Your task to perform on an android device: turn off javascript in the chrome app Image 0: 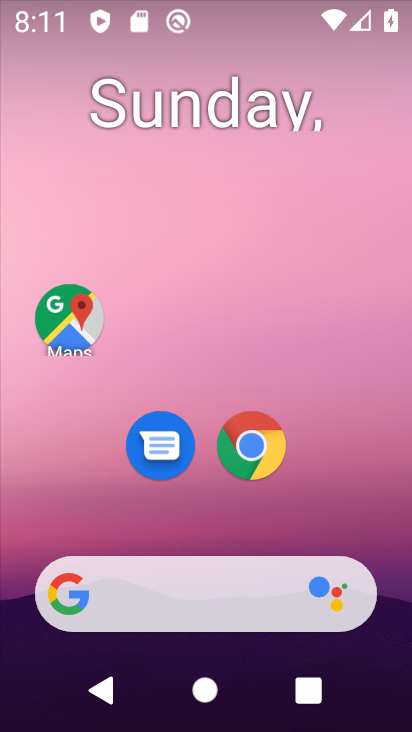
Step 0: click (264, 438)
Your task to perform on an android device: turn off javascript in the chrome app Image 1: 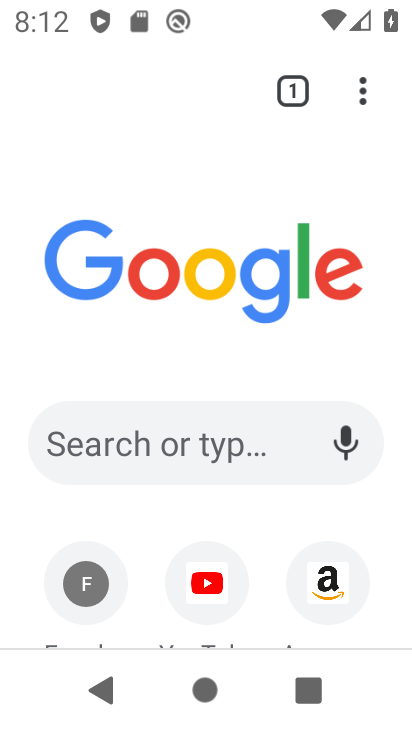
Step 1: click (345, 88)
Your task to perform on an android device: turn off javascript in the chrome app Image 2: 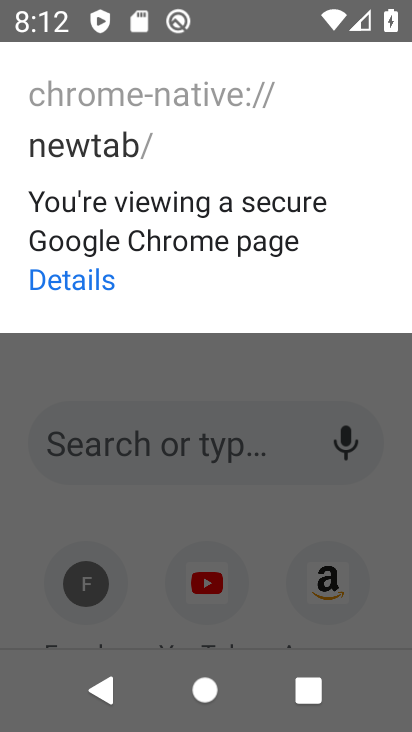
Step 2: click (333, 380)
Your task to perform on an android device: turn off javascript in the chrome app Image 3: 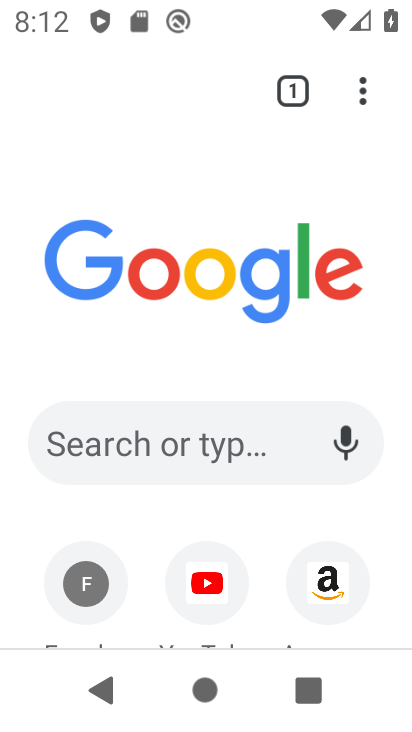
Step 3: click (365, 88)
Your task to perform on an android device: turn off javascript in the chrome app Image 4: 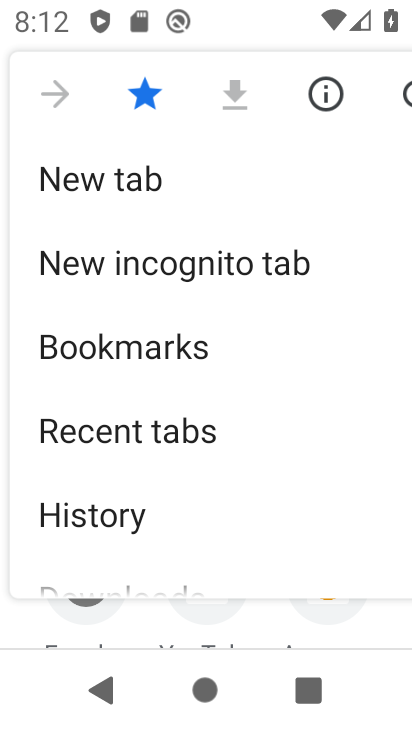
Step 4: drag from (148, 526) to (166, 146)
Your task to perform on an android device: turn off javascript in the chrome app Image 5: 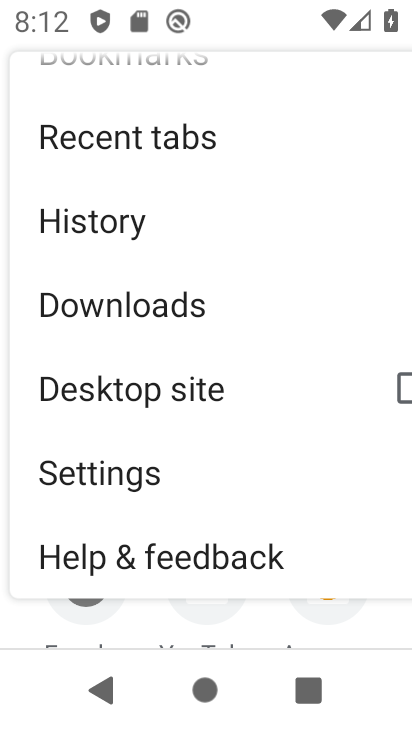
Step 5: click (119, 472)
Your task to perform on an android device: turn off javascript in the chrome app Image 6: 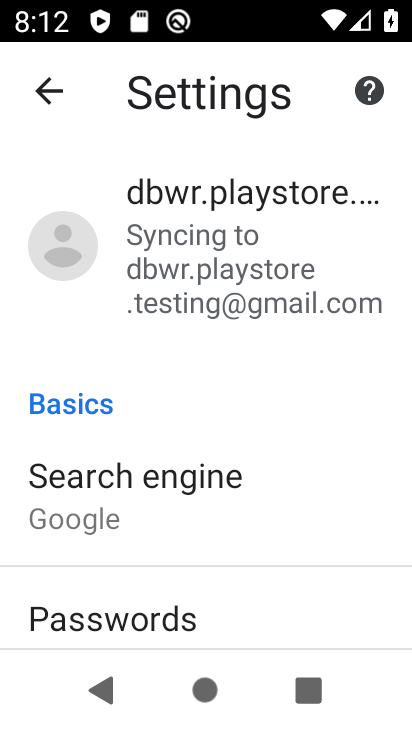
Step 6: drag from (174, 549) to (294, 57)
Your task to perform on an android device: turn off javascript in the chrome app Image 7: 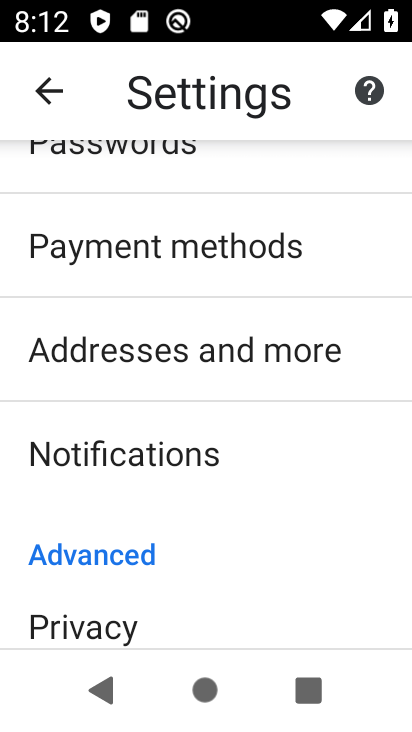
Step 7: drag from (98, 612) to (198, 213)
Your task to perform on an android device: turn off javascript in the chrome app Image 8: 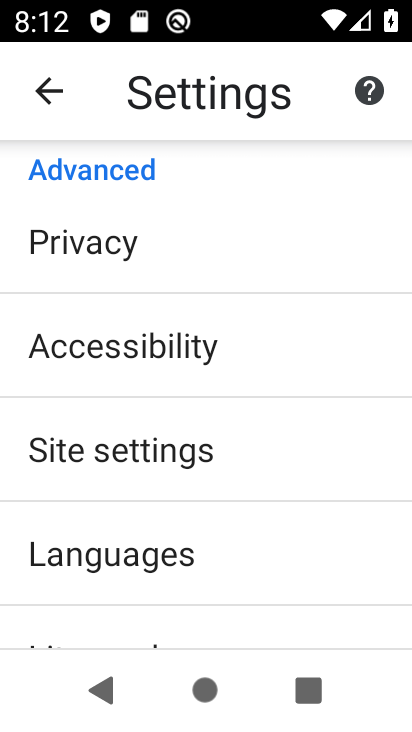
Step 8: click (143, 445)
Your task to perform on an android device: turn off javascript in the chrome app Image 9: 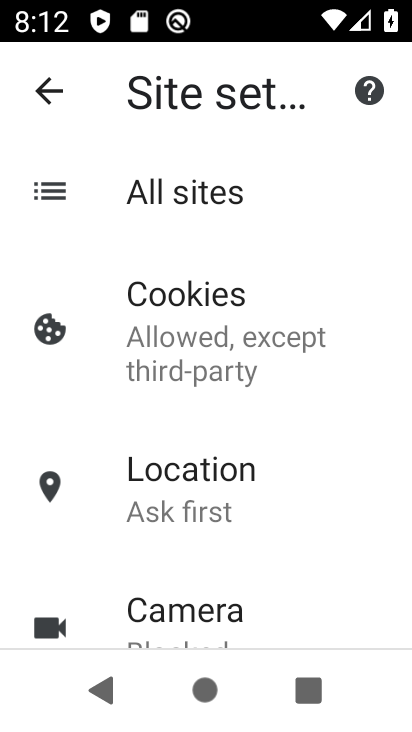
Step 9: drag from (208, 563) to (211, 51)
Your task to perform on an android device: turn off javascript in the chrome app Image 10: 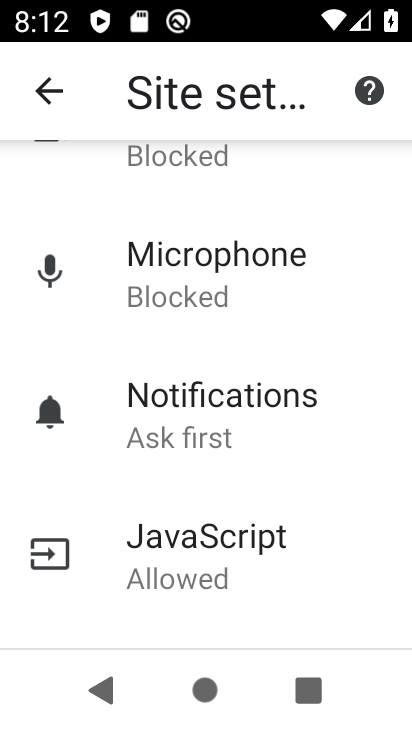
Step 10: click (168, 584)
Your task to perform on an android device: turn off javascript in the chrome app Image 11: 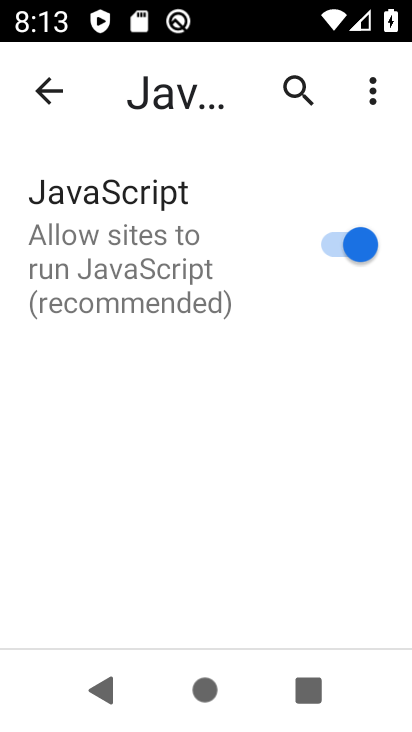
Step 11: click (331, 241)
Your task to perform on an android device: turn off javascript in the chrome app Image 12: 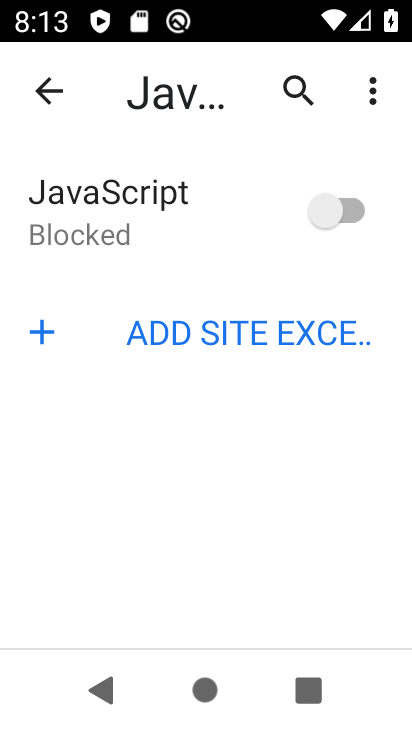
Step 12: task complete